Your task to perform on an android device: Open Google Image 0: 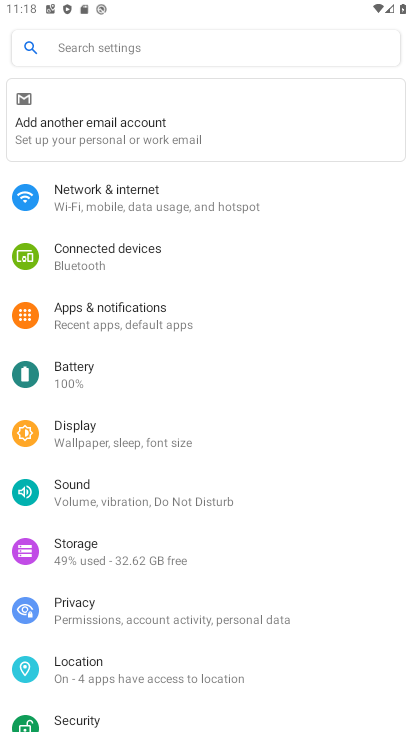
Step 0: press home button
Your task to perform on an android device: Open Google Image 1: 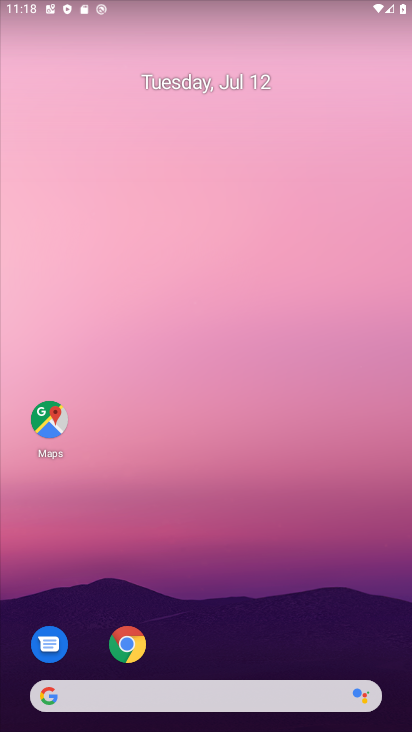
Step 1: drag from (213, 679) to (311, 6)
Your task to perform on an android device: Open Google Image 2: 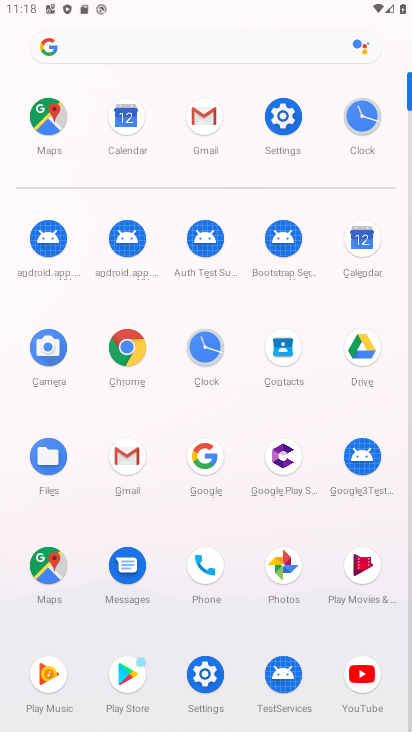
Step 2: click (201, 454)
Your task to perform on an android device: Open Google Image 3: 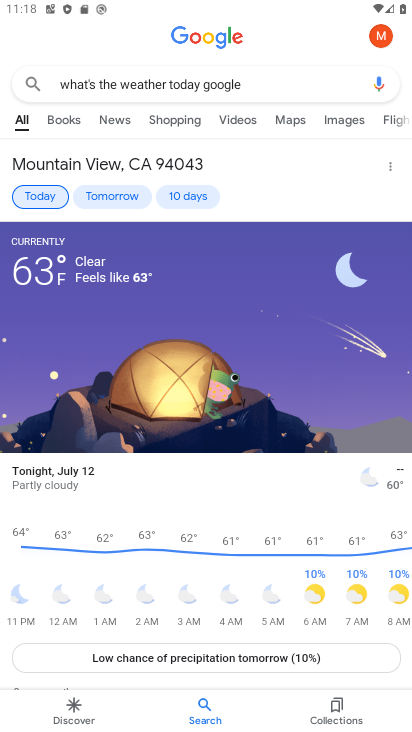
Step 3: task complete